Your task to perform on an android device: open app "Indeed Job Search" (install if not already installed) Image 0: 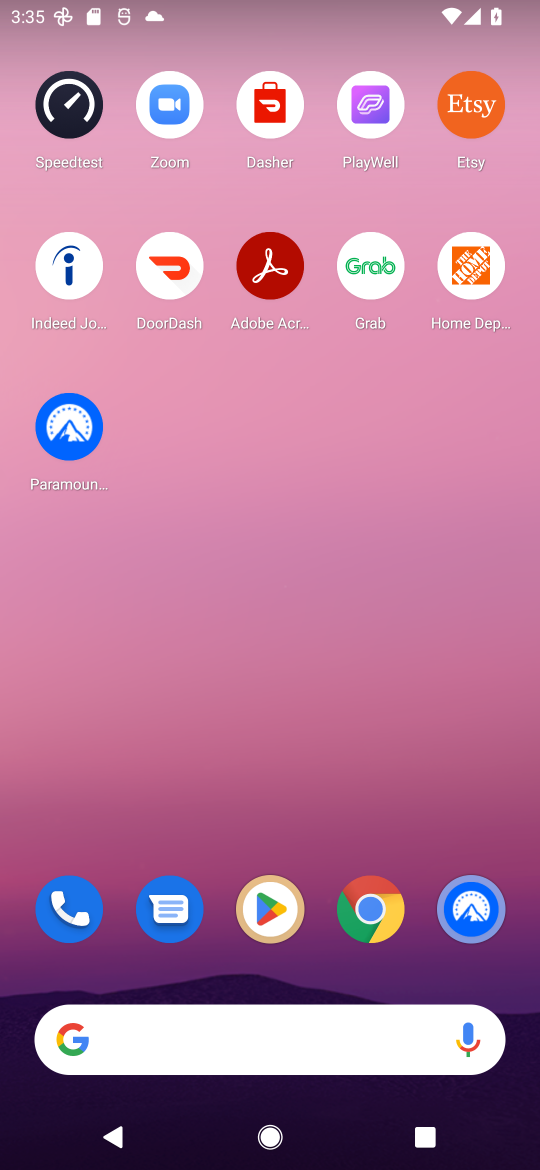
Step 0: press home button
Your task to perform on an android device: open app "Indeed Job Search" (install if not already installed) Image 1: 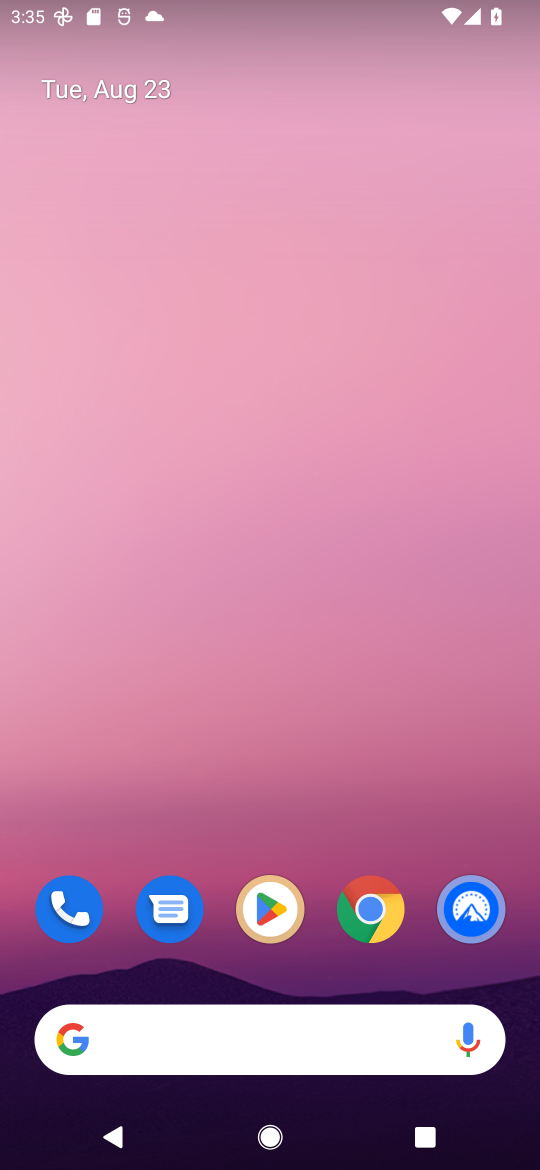
Step 1: click (265, 900)
Your task to perform on an android device: open app "Indeed Job Search" (install if not already installed) Image 2: 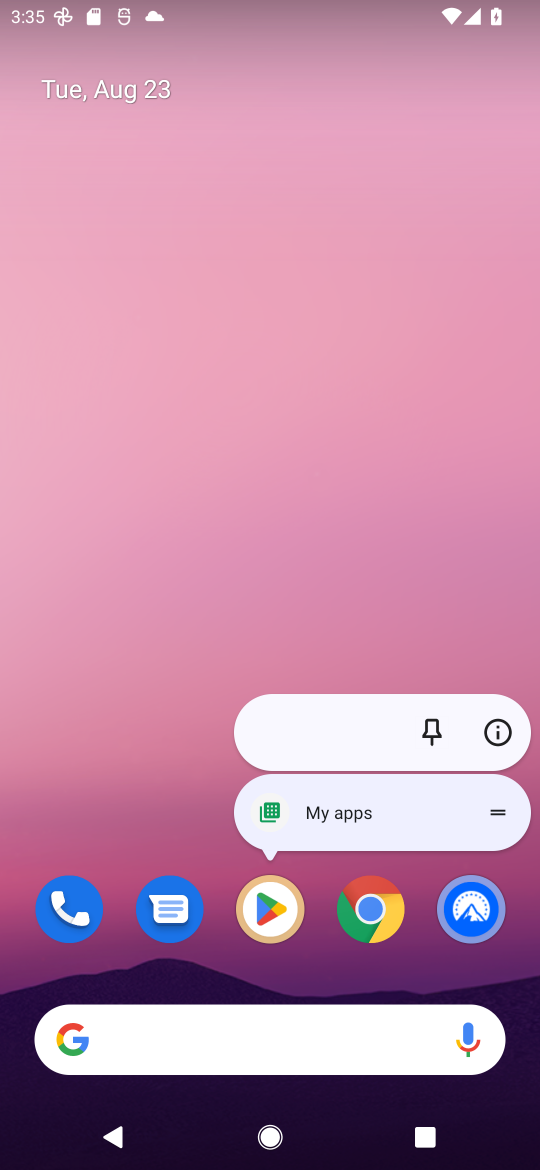
Step 2: click (265, 901)
Your task to perform on an android device: open app "Indeed Job Search" (install if not already installed) Image 3: 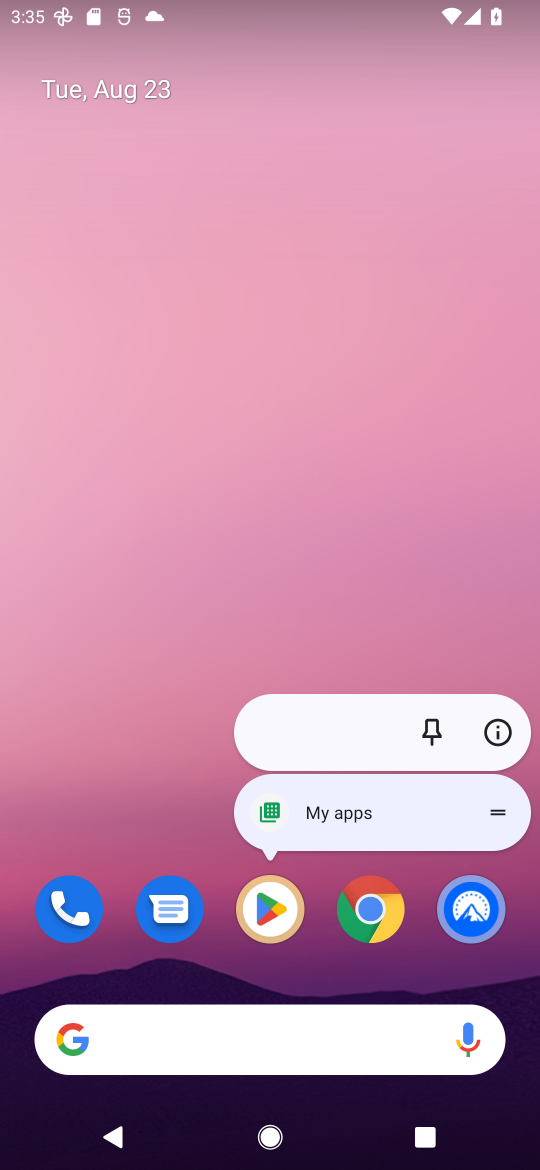
Step 3: click (101, 552)
Your task to perform on an android device: open app "Indeed Job Search" (install if not already installed) Image 4: 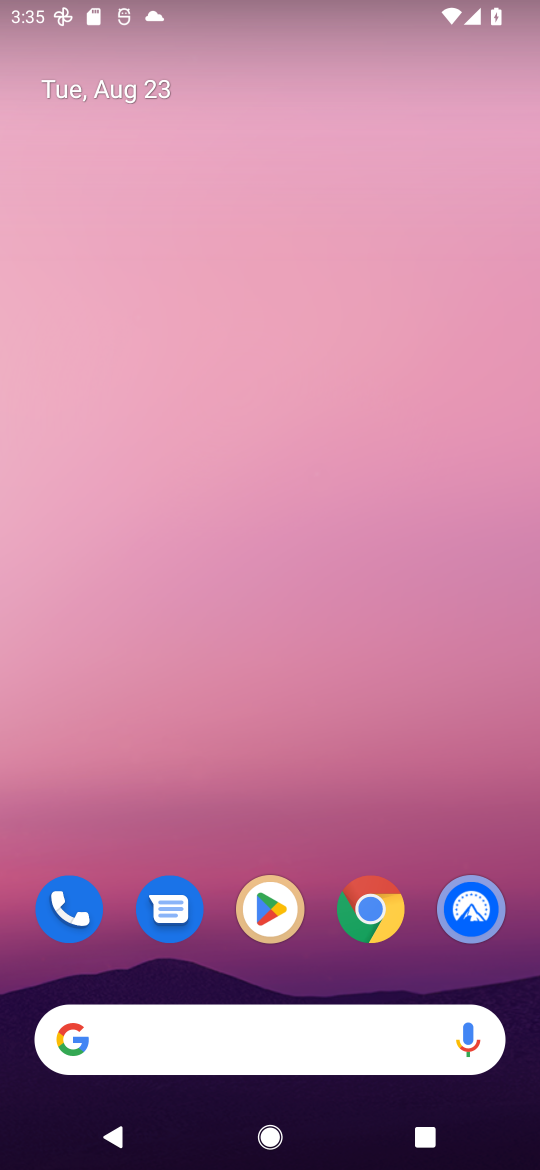
Step 4: click (264, 905)
Your task to perform on an android device: open app "Indeed Job Search" (install if not already installed) Image 5: 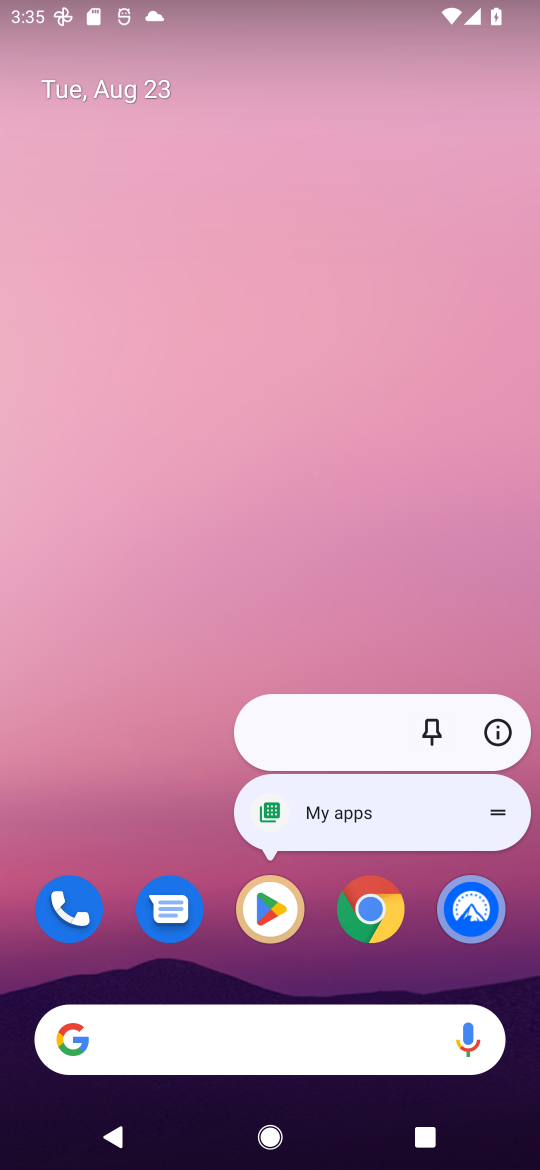
Step 5: click (144, 769)
Your task to perform on an android device: open app "Indeed Job Search" (install if not already installed) Image 6: 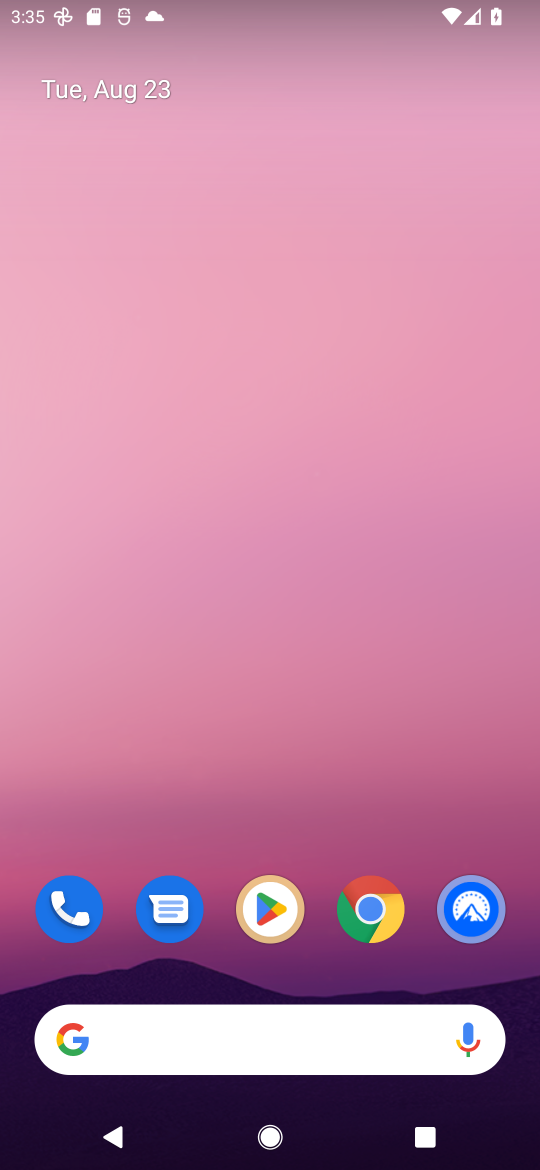
Step 6: drag from (325, 984) to (369, 1)
Your task to perform on an android device: open app "Indeed Job Search" (install if not already installed) Image 7: 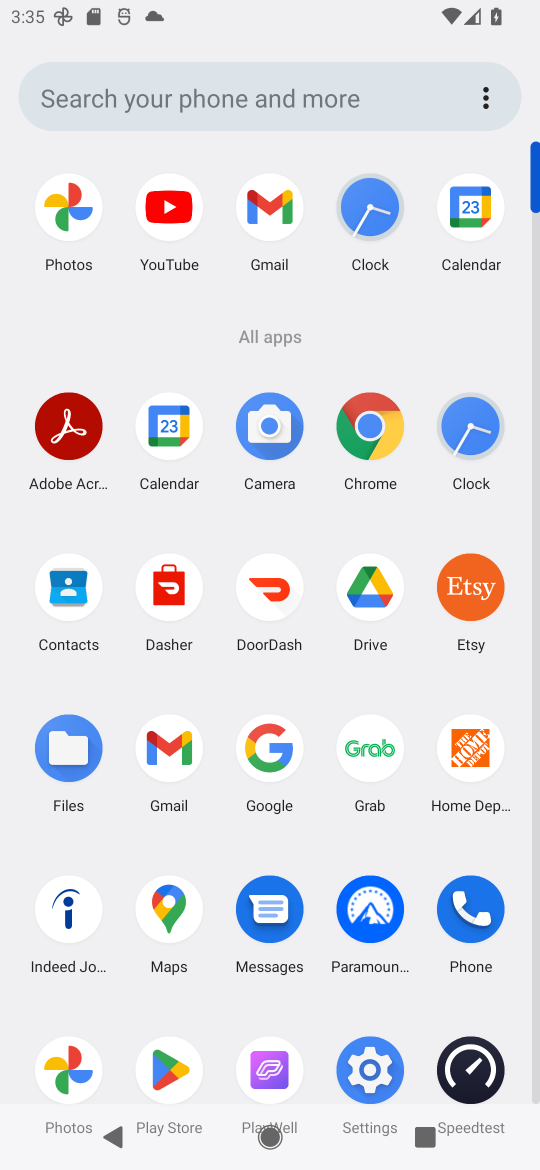
Step 7: click (161, 1062)
Your task to perform on an android device: open app "Indeed Job Search" (install if not already installed) Image 8: 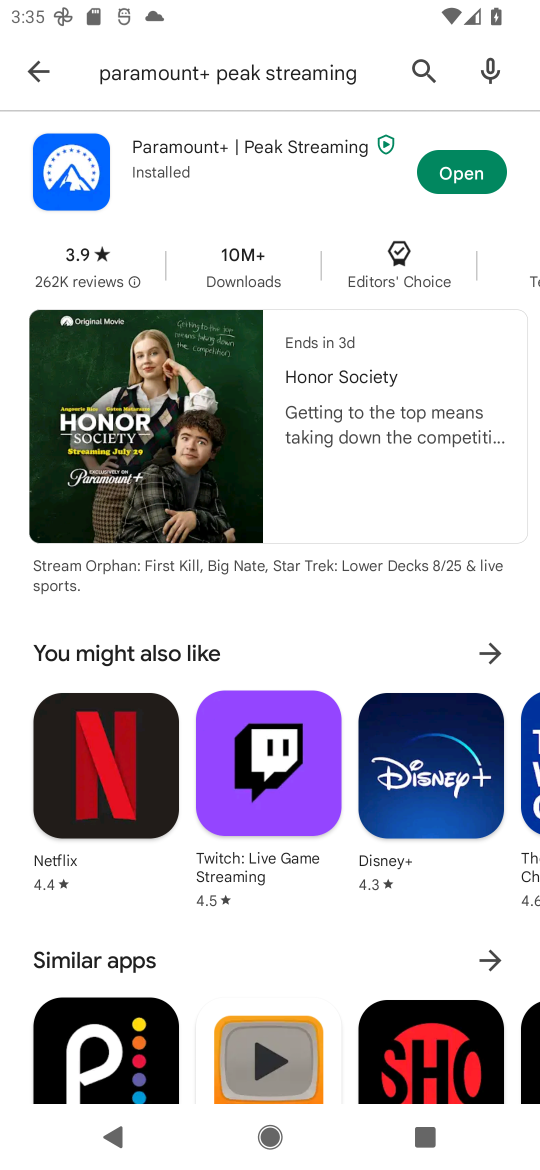
Step 8: click (416, 61)
Your task to perform on an android device: open app "Indeed Job Search" (install if not already installed) Image 9: 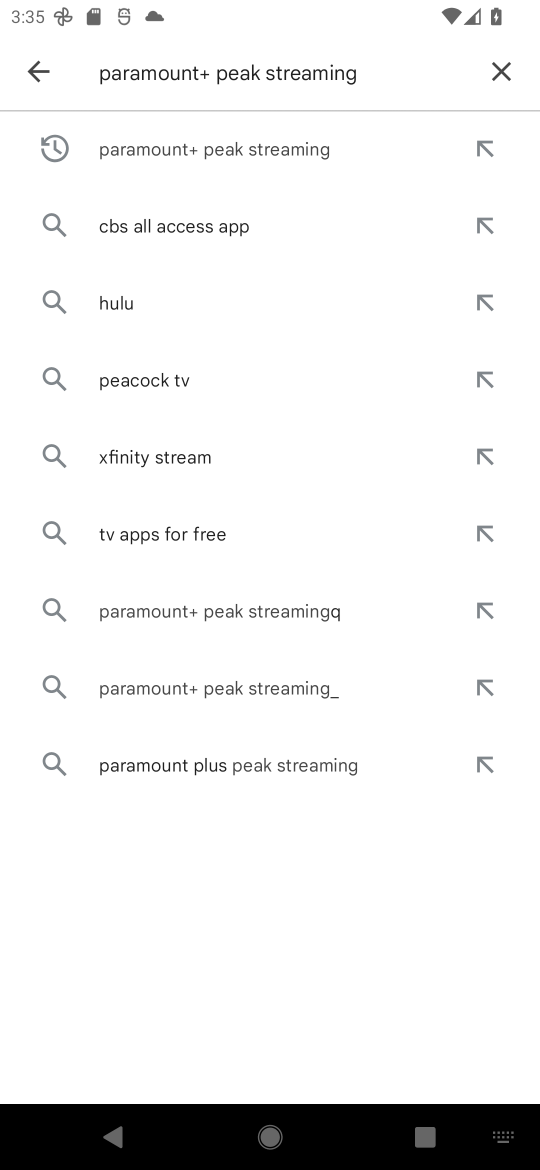
Step 9: click (504, 72)
Your task to perform on an android device: open app "Indeed Job Search" (install if not already installed) Image 10: 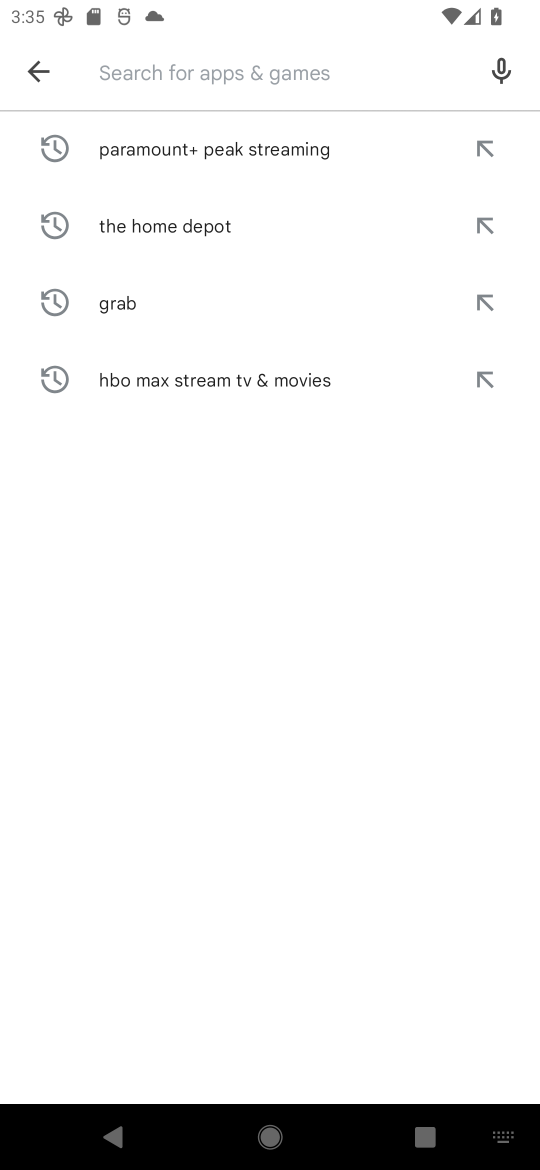
Step 10: type "Indeed Job Search"
Your task to perform on an android device: open app "Indeed Job Search" (install if not already installed) Image 11: 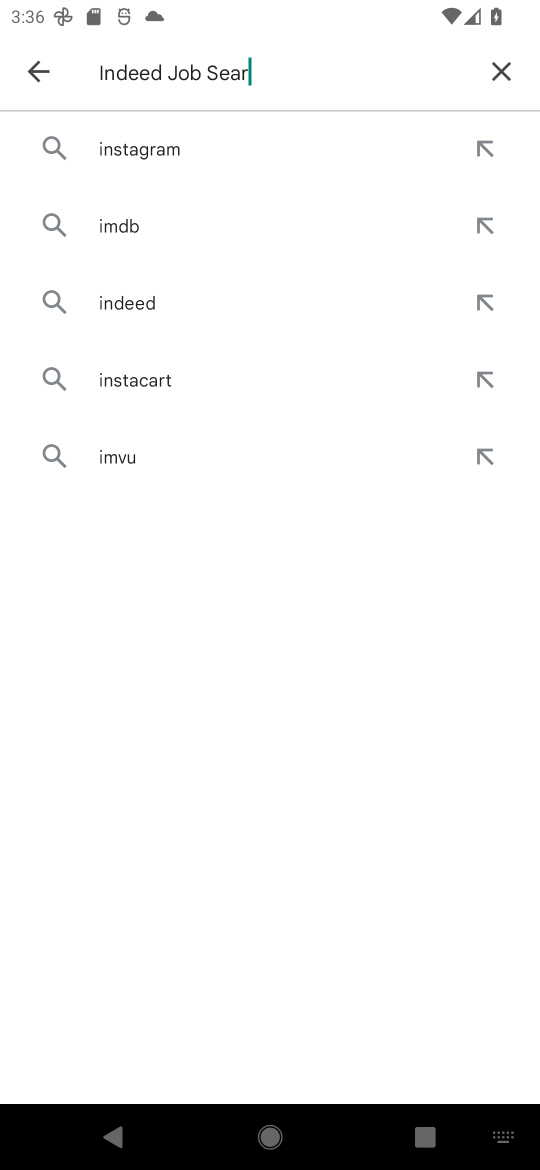
Step 11: type ""
Your task to perform on an android device: open app "Indeed Job Search" (install if not already installed) Image 12: 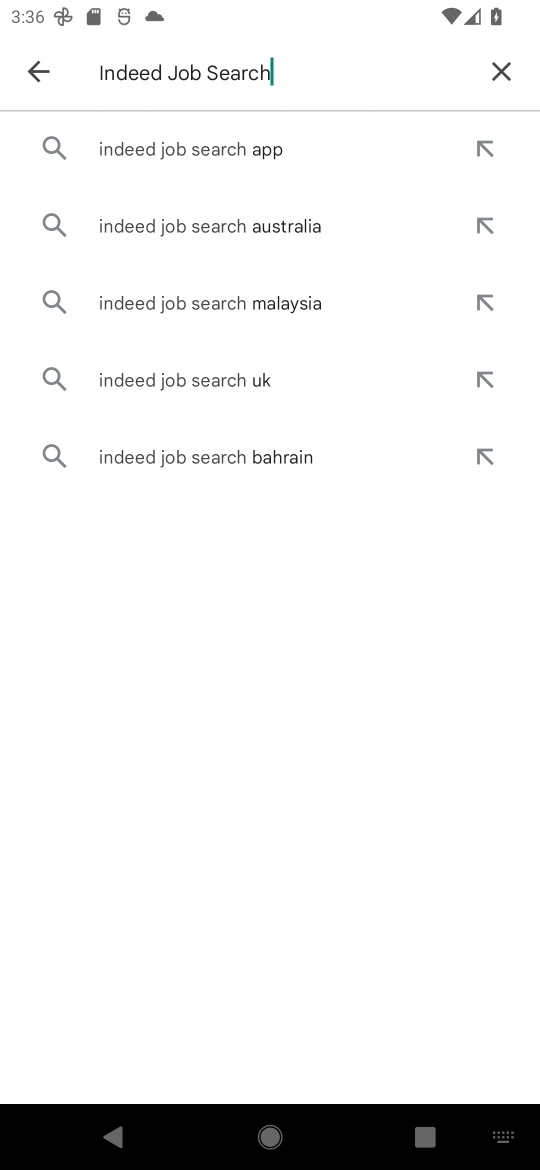
Step 12: click (284, 146)
Your task to perform on an android device: open app "Indeed Job Search" (install if not already installed) Image 13: 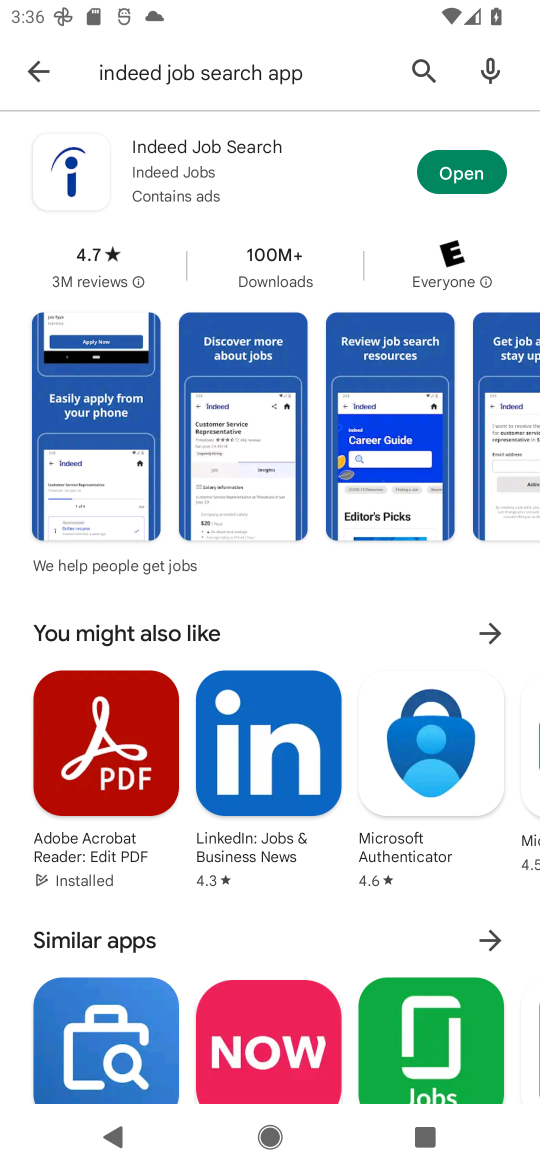
Step 13: click (458, 177)
Your task to perform on an android device: open app "Indeed Job Search" (install if not already installed) Image 14: 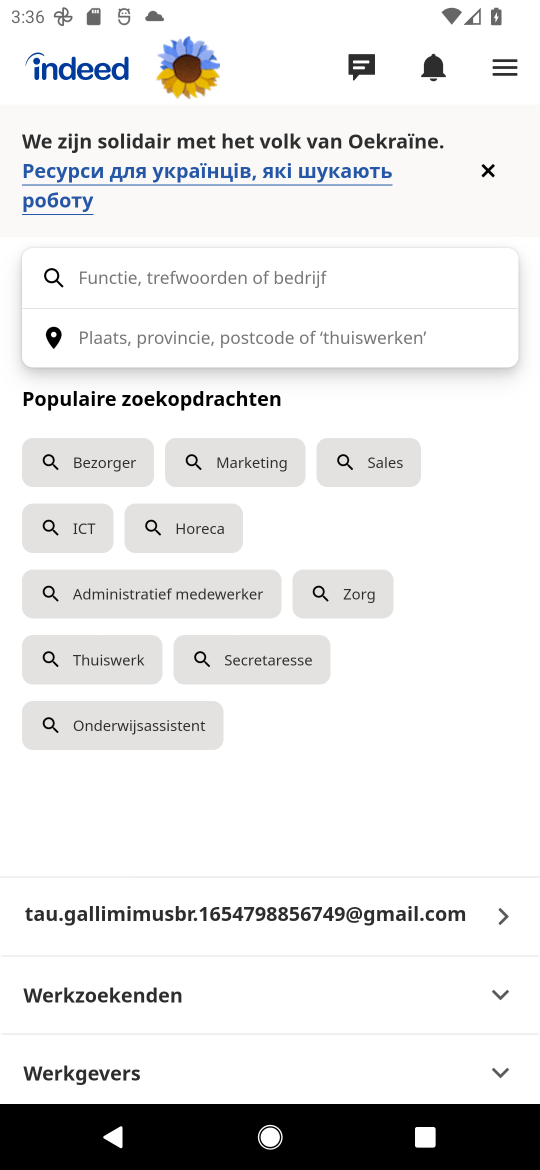
Step 14: click (485, 168)
Your task to perform on an android device: open app "Indeed Job Search" (install if not already installed) Image 15: 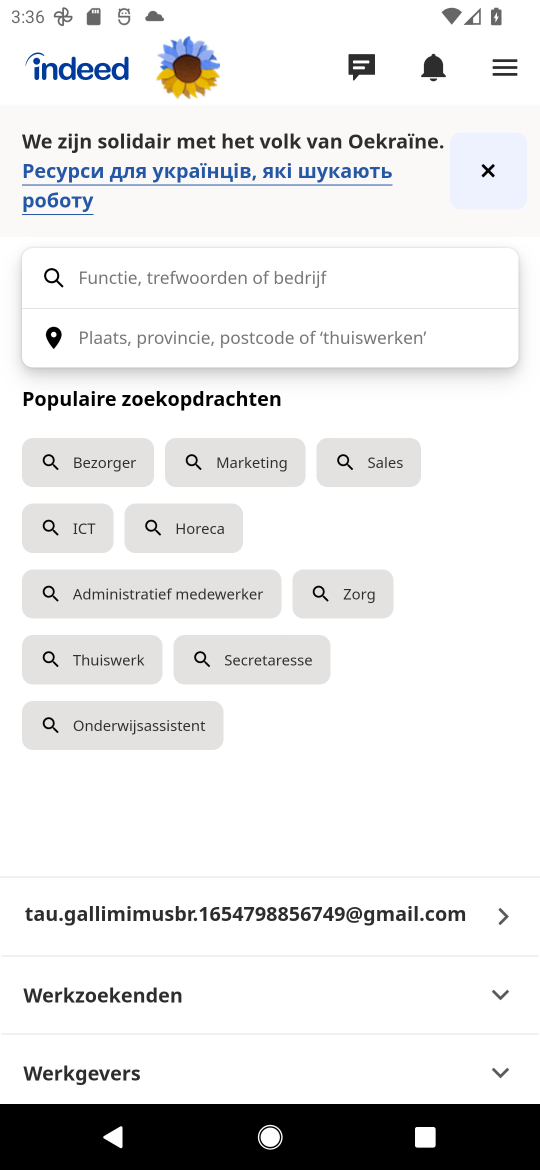
Step 15: task complete